Your task to perform on an android device: delete browsing data in the chrome app Image 0: 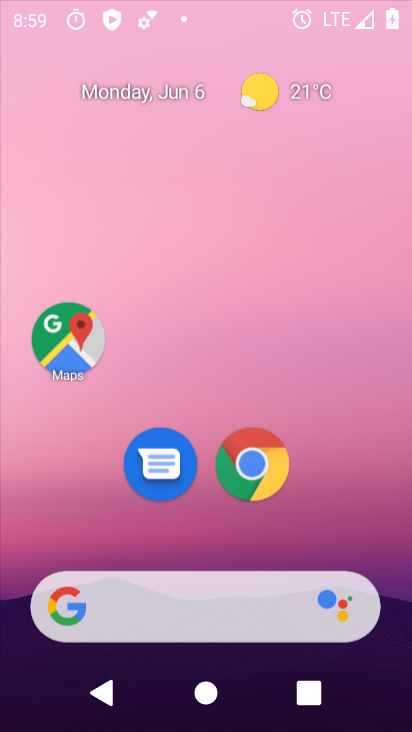
Step 0: click (300, 137)
Your task to perform on an android device: delete browsing data in the chrome app Image 1: 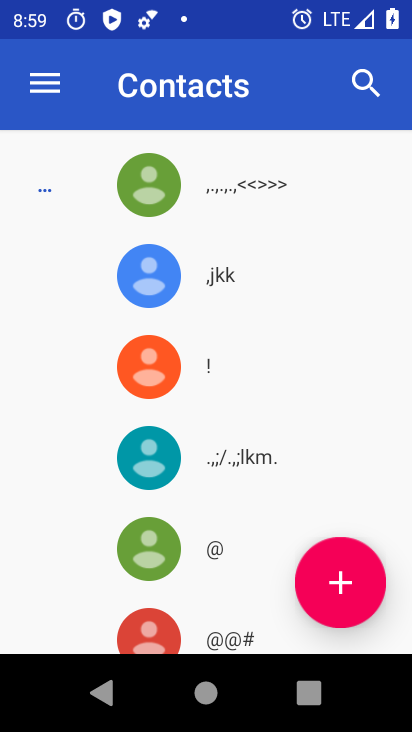
Step 1: click (410, 92)
Your task to perform on an android device: delete browsing data in the chrome app Image 2: 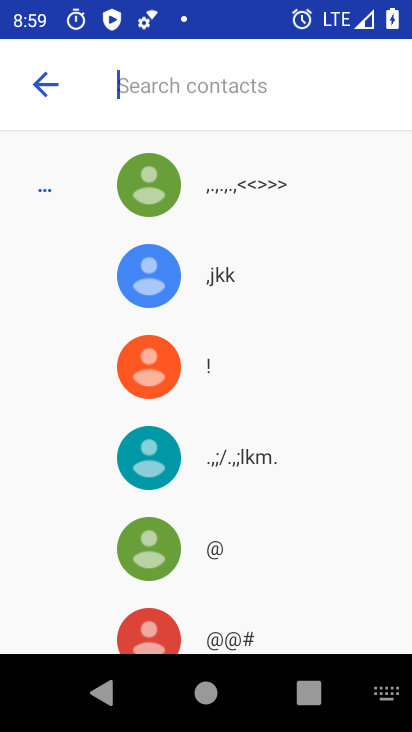
Step 2: click (37, 68)
Your task to perform on an android device: delete browsing data in the chrome app Image 3: 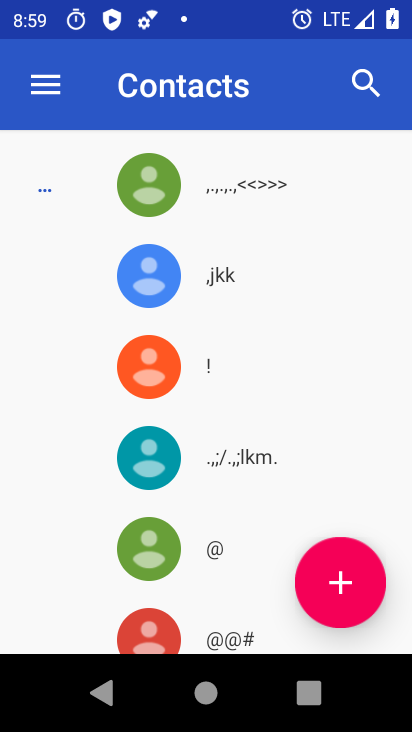
Step 3: press home button
Your task to perform on an android device: delete browsing data in the chrome app Image 4: 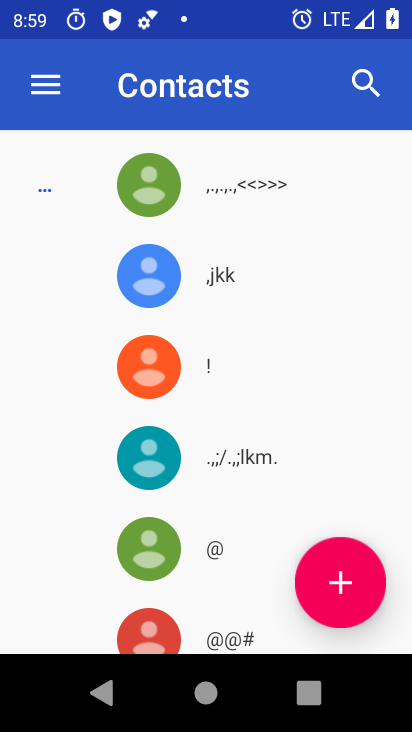
Step 4: drag from (340, 446) to (370, 75)
Your task to perform on an android device: delete browsing data in the chrome app Image 5: 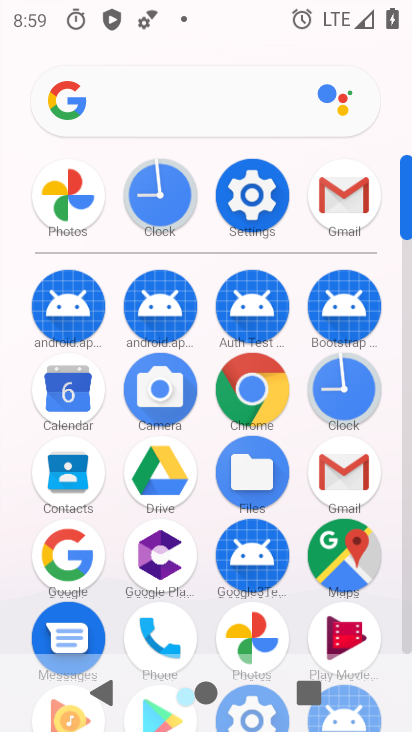
Step 5: click (252, 388)
Your task to perform on an android device: delete browsing data in the chrome app Image 6: 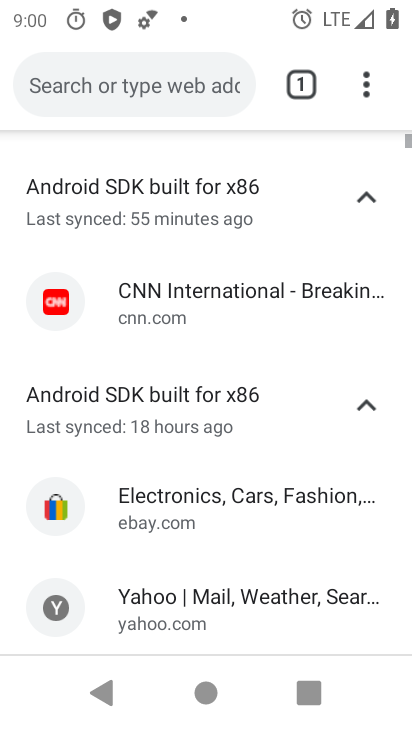
Step 6: drag from (55, 536) to (154, 82)
Your task to perform on an android device: delete browsing data in the chrome app Image 7: 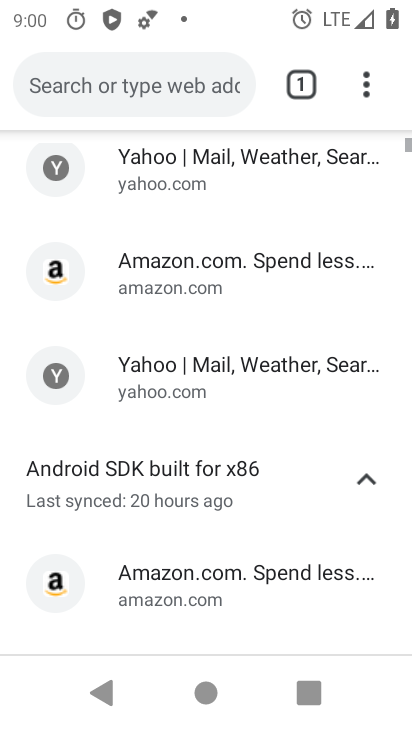
Step 7: drag from (144, 458) to (210, 218)
Your task to perform on an android device: delete browsing data in the chrome app Image 8: 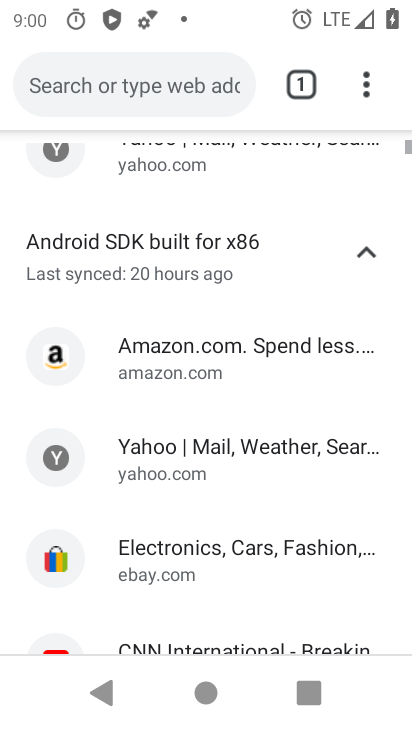
Step 8: drag from (230, 539) to (290, 200)
Your task to perform on an android device: delete browsing data in the chrome app Image 9: 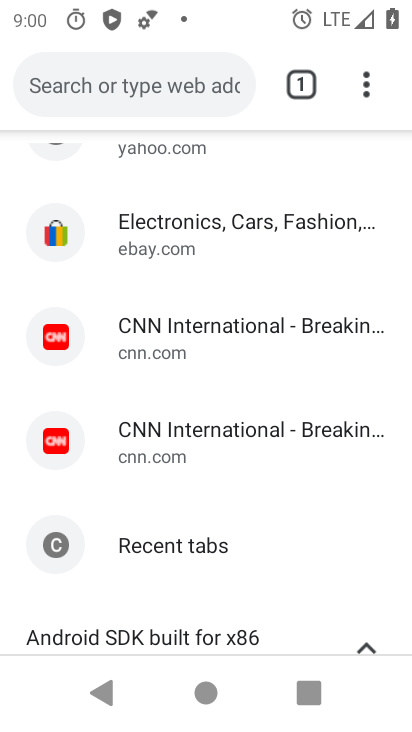
Step 9: drag from (253, 555) to (297, 276)
Your task to perform on an android device: delete browsing data in the chrome app Image 10: 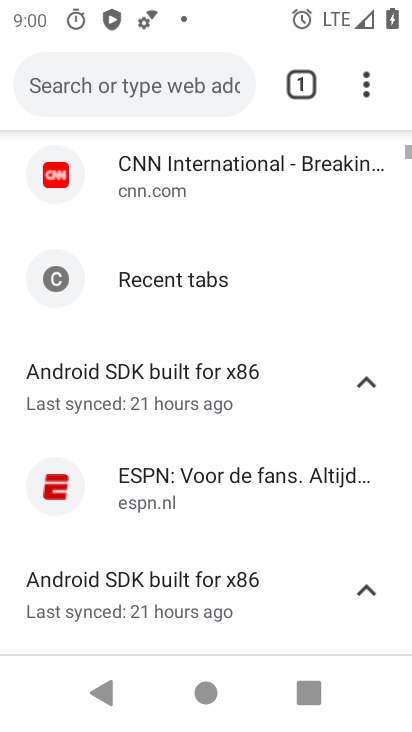
Step 10: drag from (367, 72) to (81, 475)
Your task to perform on an android device: delete browsing data in the chrome app Image 11: 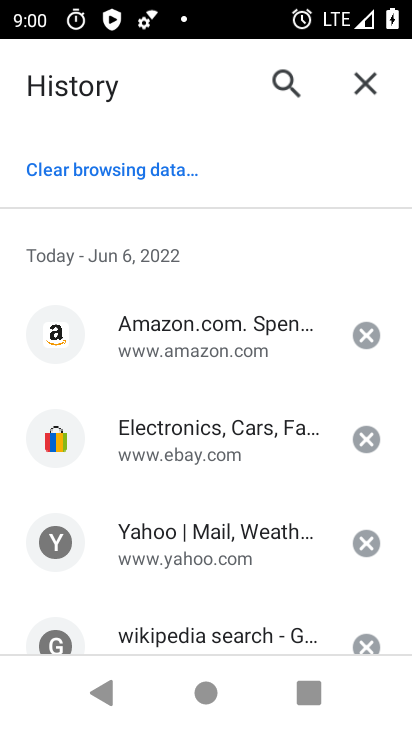
Step 11: click (97, 179)
Your task to perform on an android device: delete browsing data in the chrome app Image 12: 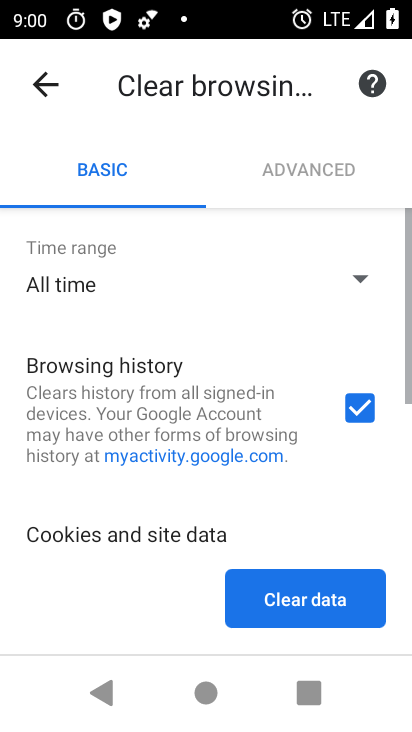
Step 12: drag from (267, 442) to (329, 40)
Your task to perform on an android device: delete browsing data in the chrome app Image 13: 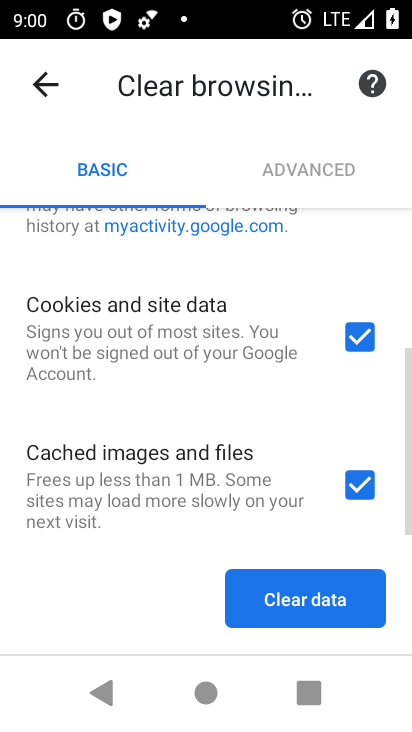
Step 13: click (263, 584)
Your task to perform on an android device: delete browsing data in the chrome app Image 14: 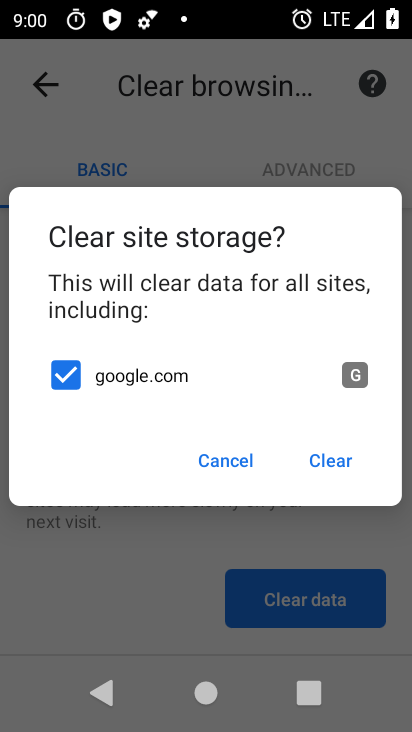
Step 14: task complete